Your task to perform on an android device: turn off priority inbox in the gmail app Image 0: 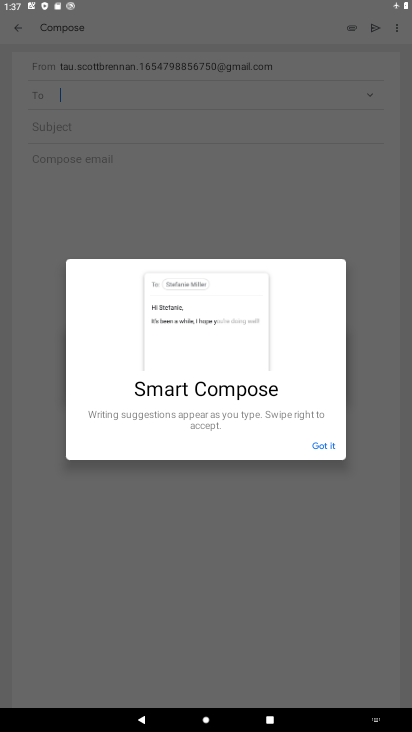
Step 0: press home button
Your task to perform on an android device: turn off priority inbox in the gmail app Image 1: 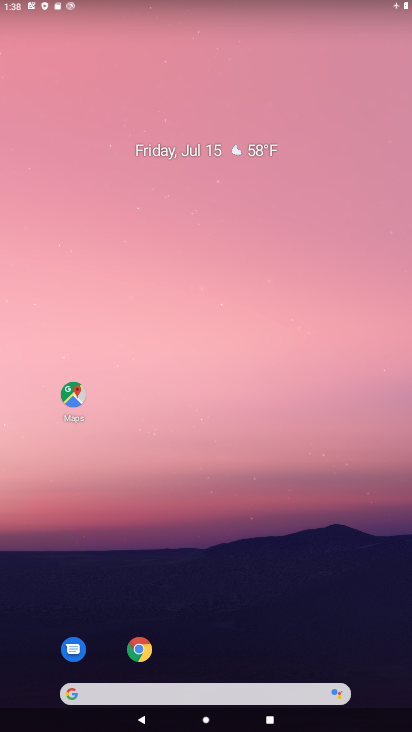
Step 1: drag from (310, 696) to (314, 12)
Your task to perform on an android device: turn off priority inbox in the gmail app Image 2: 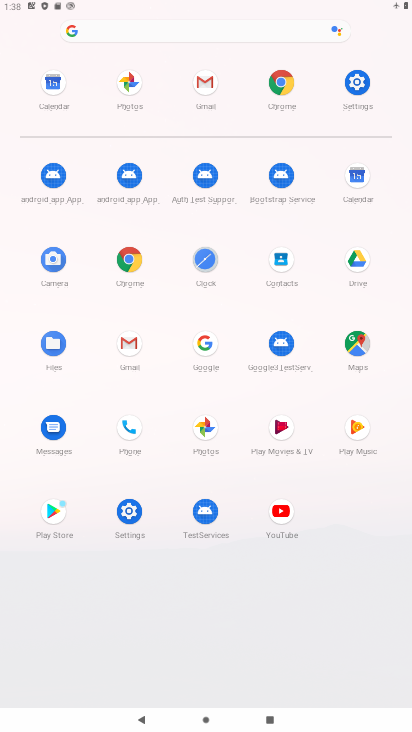
Step 2: click (121, 343)
Your task to perform on an android device: turn off priority inbox in the gmail app Image 3: 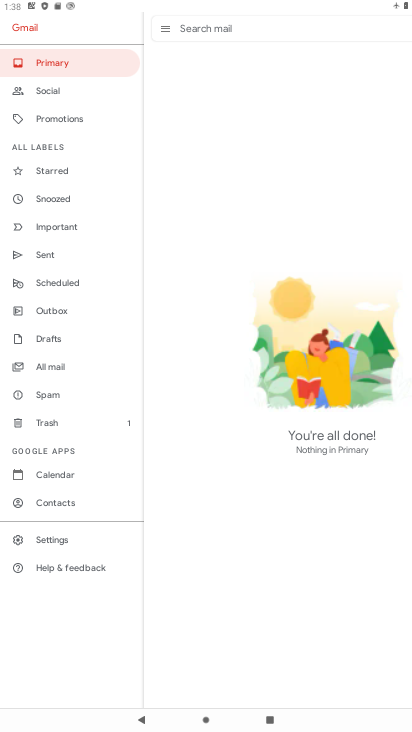
Step 3: click (71, 541)
Your task to perform on an android device: turn off priority inbox in the gmail app Image 4: 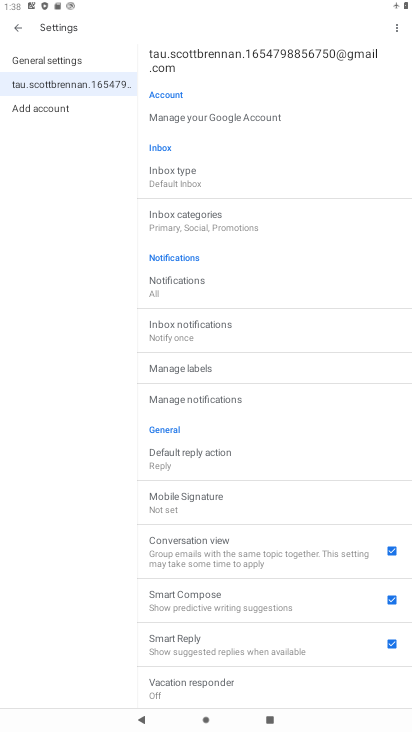
Step 4: click (208, 186)
Your task to perform on an android device: turn off priority inbox in the gmail app Image 5: 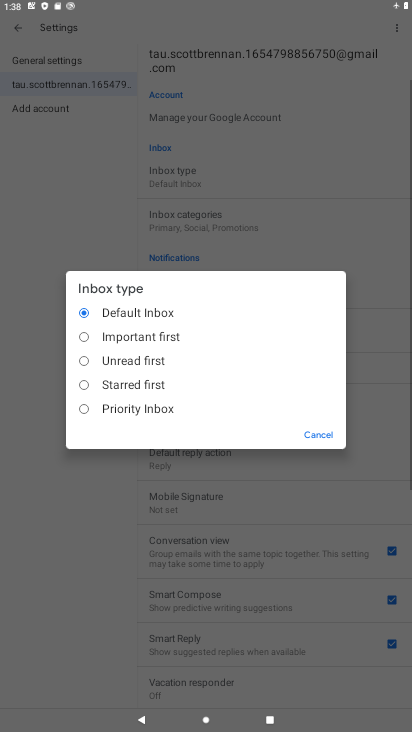
Step 5: task complete